Your task to perform on an android device: turn off airplane mode Image 0: 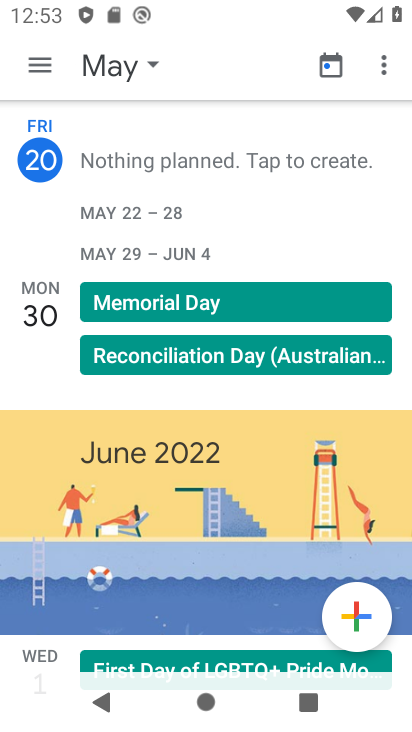
Step 0: press home button
Your task to perform on an android device: turn off airplane mode Image 1: 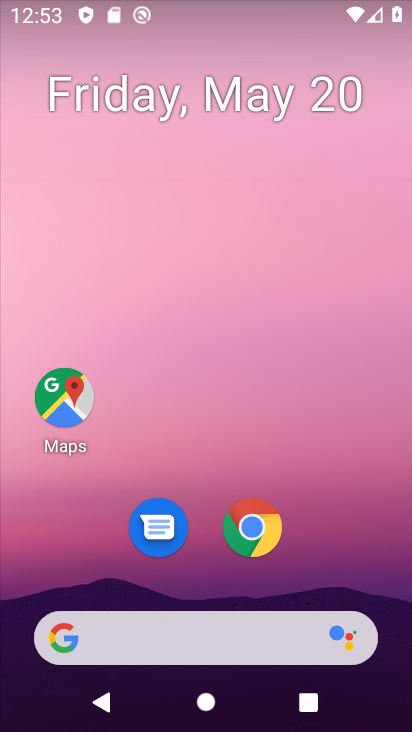
Step 1: drag from (145, 641) to (272, 122)
Your task to perform on an android device: turn off airplane mode Image 2: 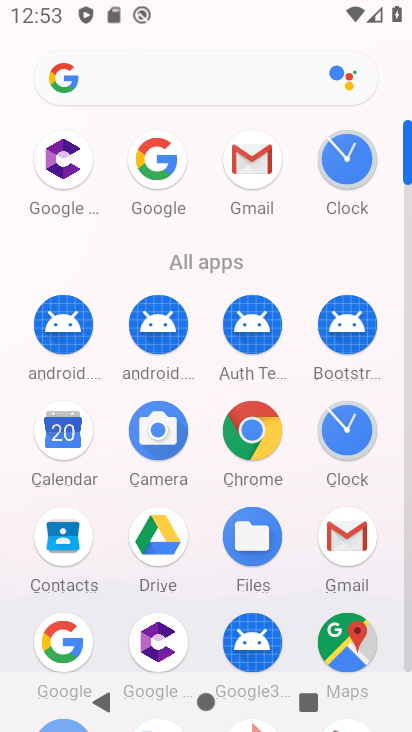
Step 2: drag from (224, 557) to (344, 171)
Your task to perform on an android device: turn off airplane mode Image 3: 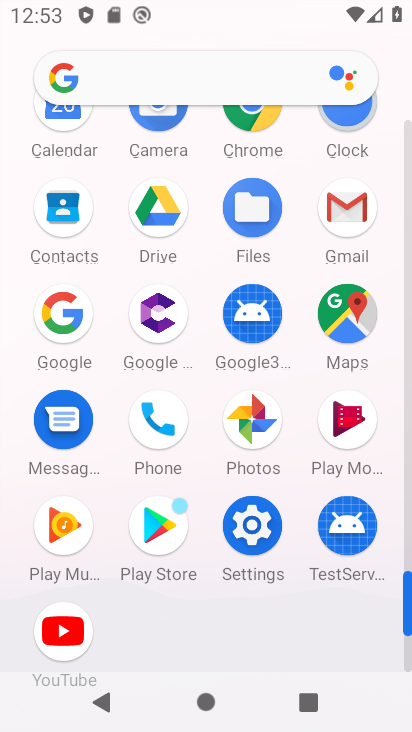
Step 3: click (262, 536)
Your task to perform on an android device: turn off airplane mode Image 4: 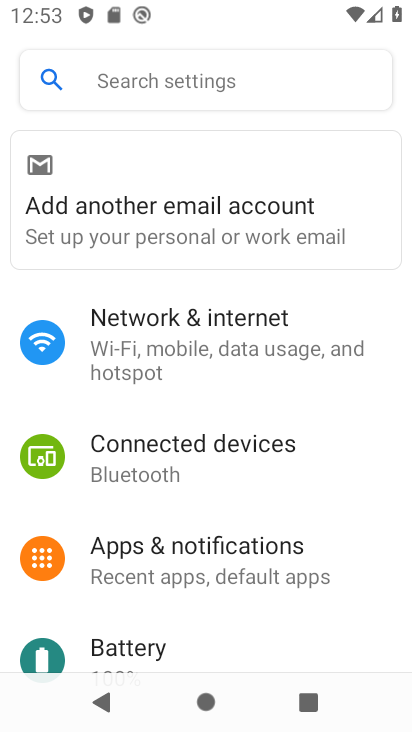
Step 4: click (220, 323)
Your task to perform on an android device: turn off airplane mode Image 5: 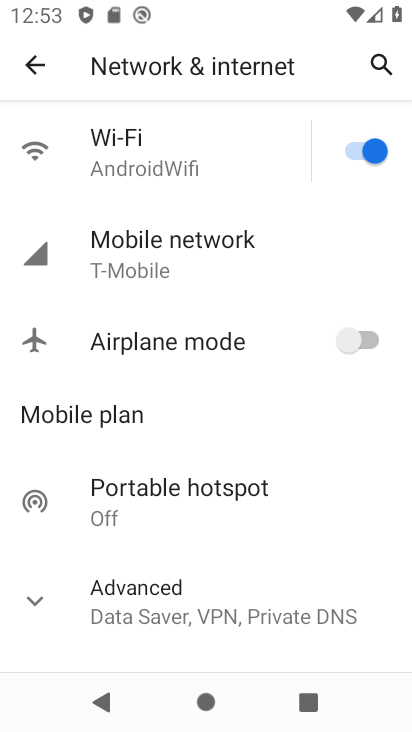
Step 5: task complete